Your task to perform on an android device: toggle show notifications on the lock screen Image 0: 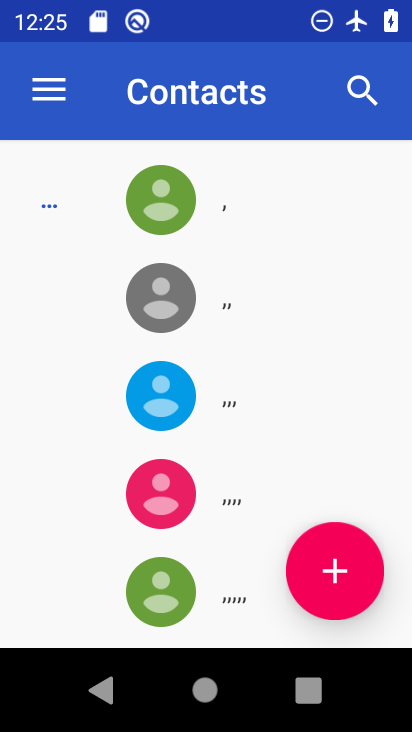
Step 0: press back button
Your task to perform on an android device: toggle show notifications on the lock screen Image 1: 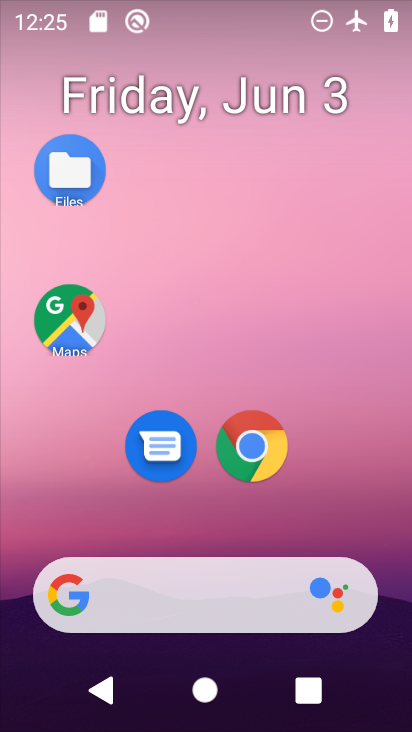
Step 1: drag from (275, 685) to (155, 92)
Your task to perform on an android device: toggle show notifications on the lock screen Image 2: 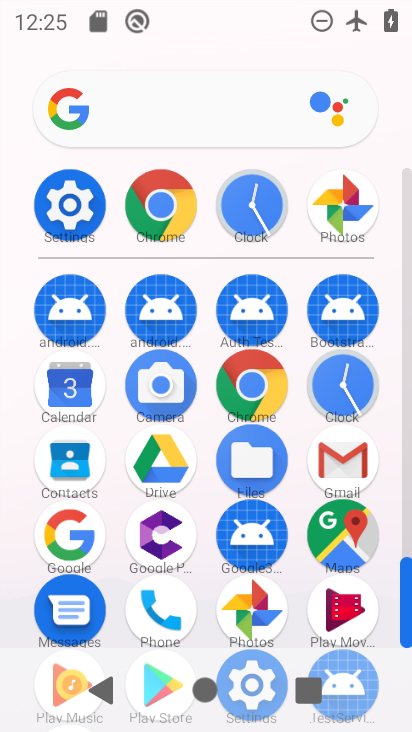
Step 2: click (78, 209)
Your task to perform on an android device: toggle show notifications on the lock screen Image 3: 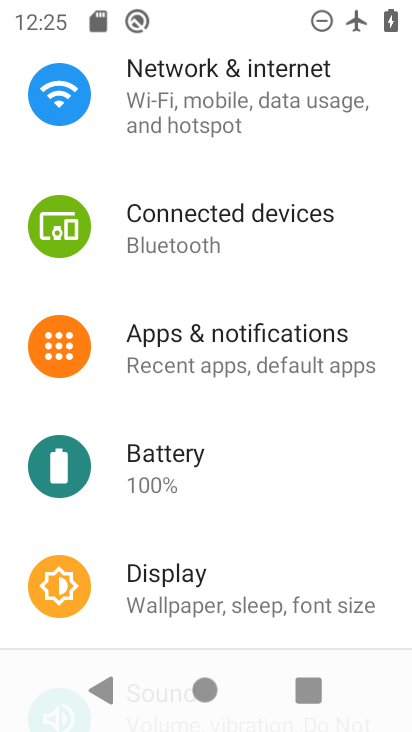
Step 3: click (282, 352)
Your task to perform on an android device: toggle show notifications on the lock screen Image 4: 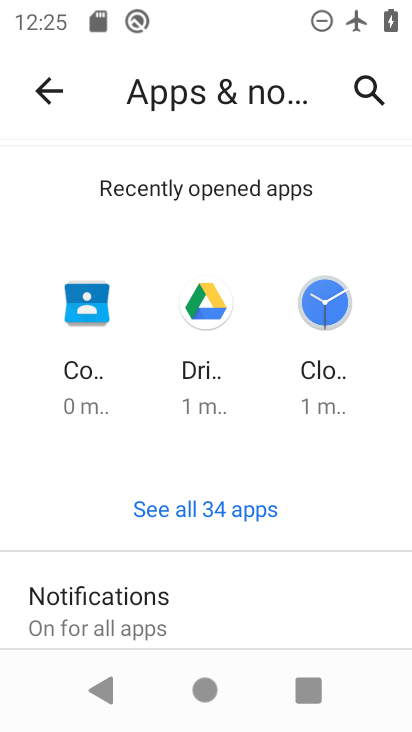
Step 4: drag from (192, 544) to (116, 210)
Your task to perform on an android device: toggle show notifications on the lock screen Image 5: 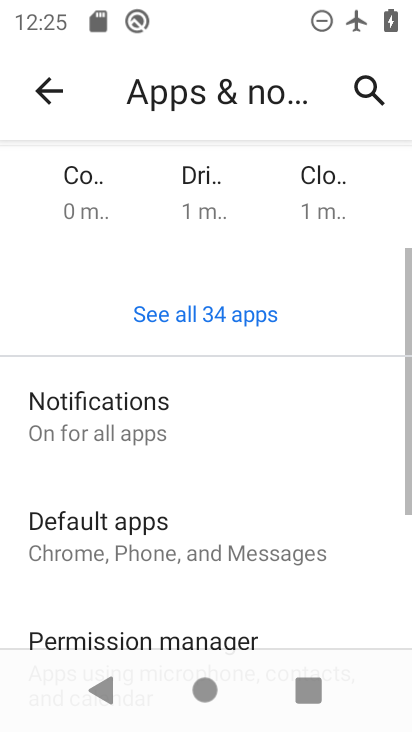
Step 5: drag from (231, 501) to (180, 222)
Your task to perform on an android device: toggle show notifications on the lock screen Image 6: 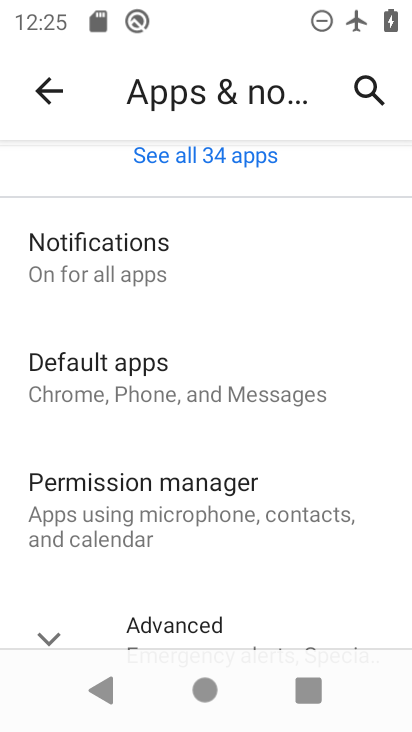
Step 6: click (102, 256)
Your task to perform on an android device: toggle show notifications on the lock screen Image 7: 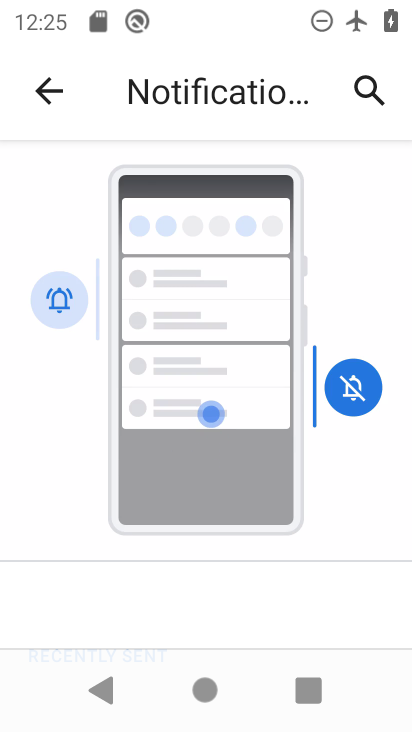
Step 7: drag from (278, 498) to (285, 170)
Your task to perform on an android device: toggle show notifications on the lock screen Image 8: 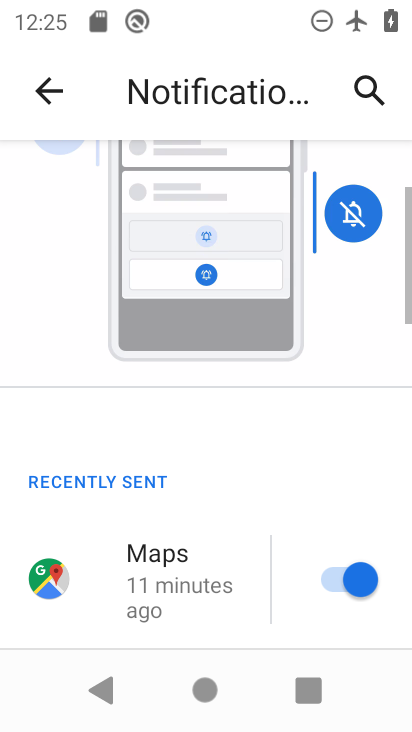
Step 8: drag from (302, 514) to (161, 117)
Your task to perform on an android device: toggle show notifications on the lock screen Image 9: 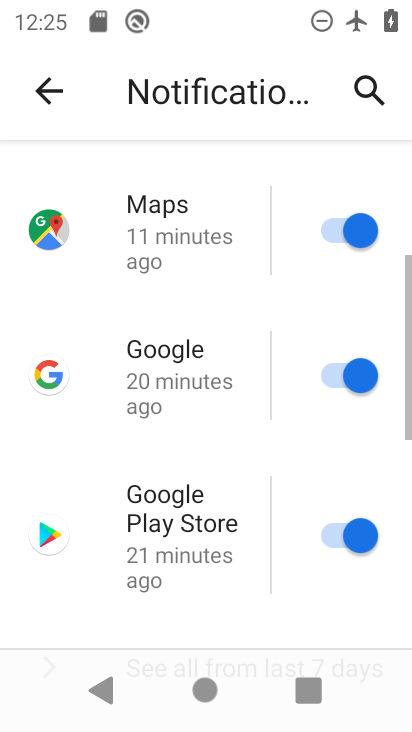
Step 9: drag from (232, 475) to (228, 117)
Your task to perform on an android device: toggle show notifications on the lock screen Image 10: 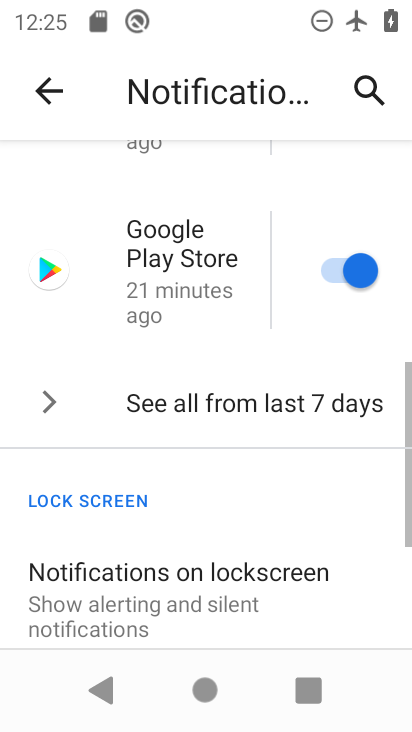
Step 10: drag from (227, 496) to (167, 26)
Your task to perform on an android device: toggle show notifications on the lock screen Image 11: 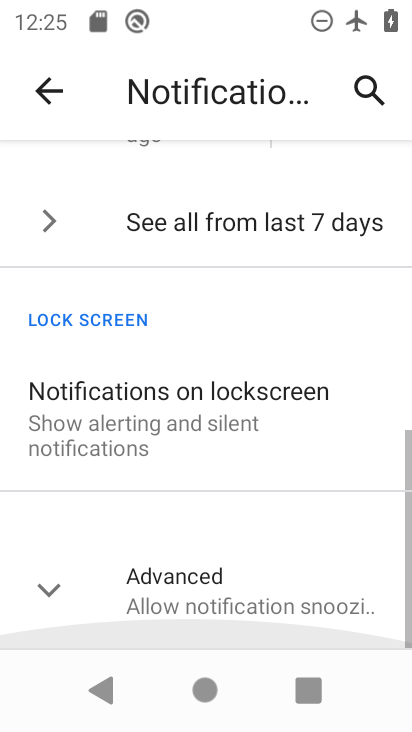
Step 11: drag from (208, 496) to (151, 173)
Your task to perform on an android device: toggle show notifications on the lock screen Image 12: 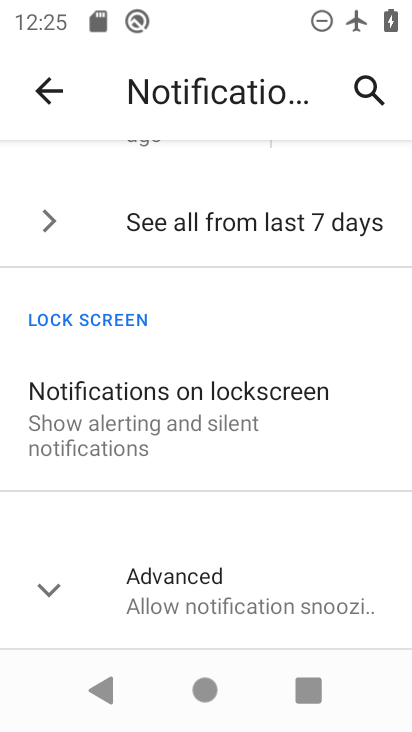
Step 12: click (114, 393)
Your task to perform on an android device: toggle show notifications on the lock screen Image 13: 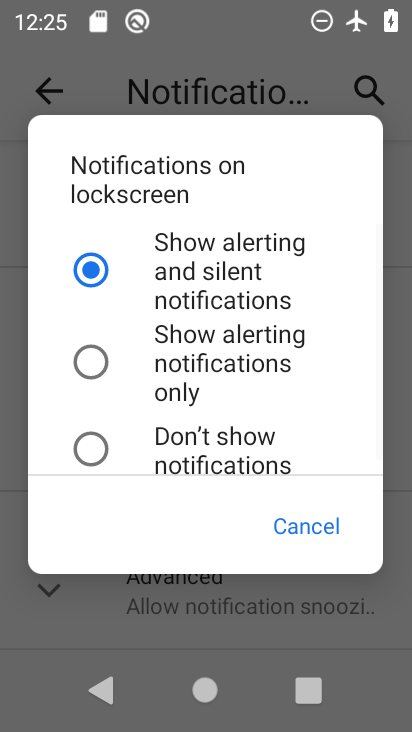
Step 13: click (304, 512)
Your task to perform on an android device: toggle show notifications on the lock screen Image 14: 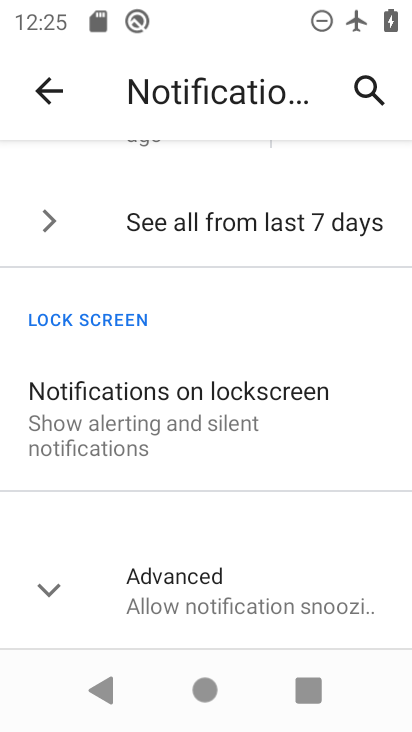
Step 14: task complete